Your task to perform on an android device: turn on improve location accuracy Image 0: 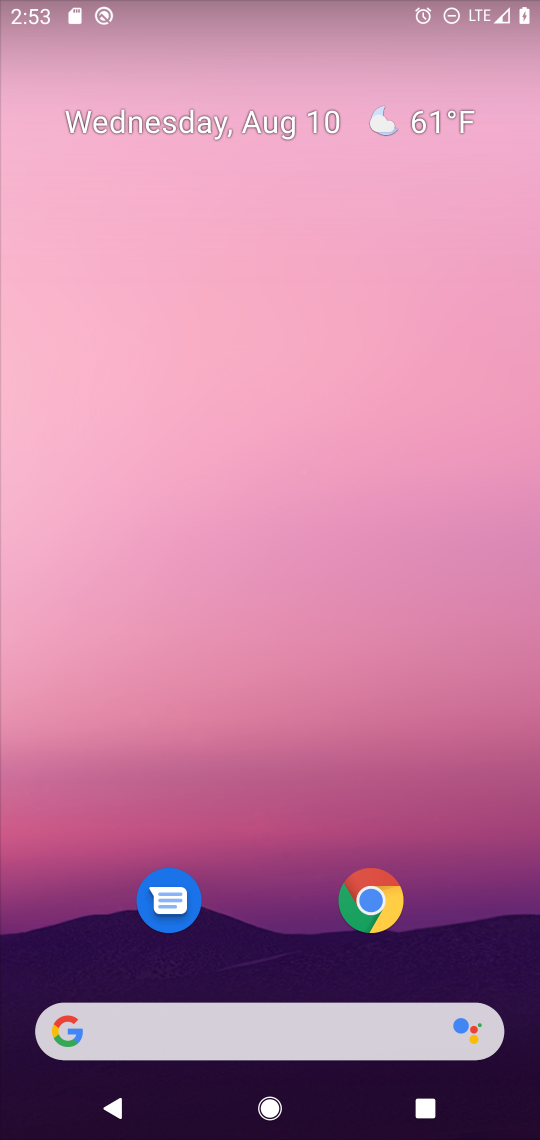
Step 0: drag from (279, 887) to (332, 3)
Your task to perform on an android device: turn on improve location accuracy Image 1: 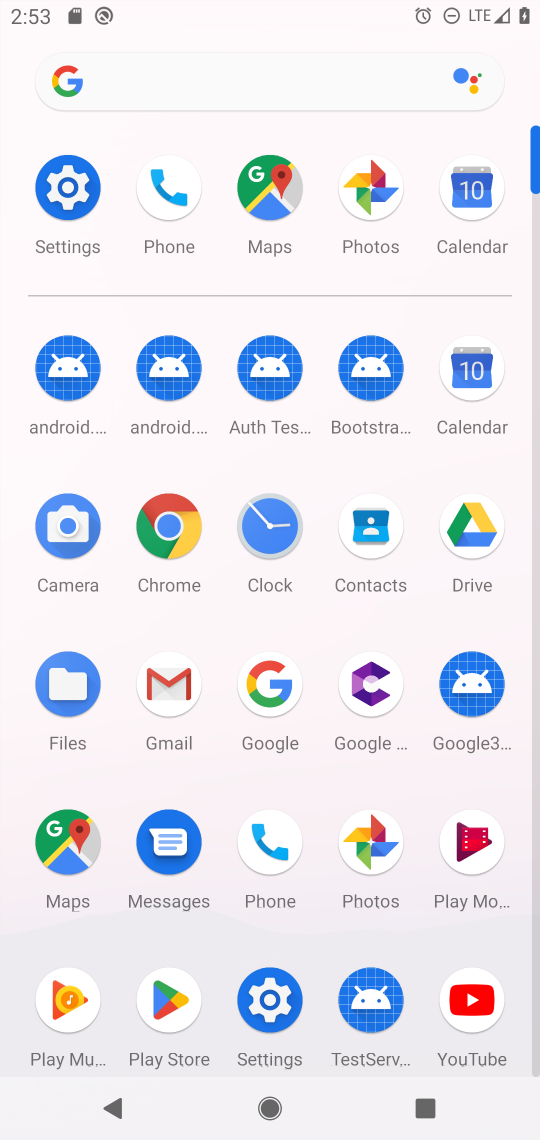
Step 1: click (68, 181)
Your task to perform on an android device: turn on improve location accuracy Image 2: 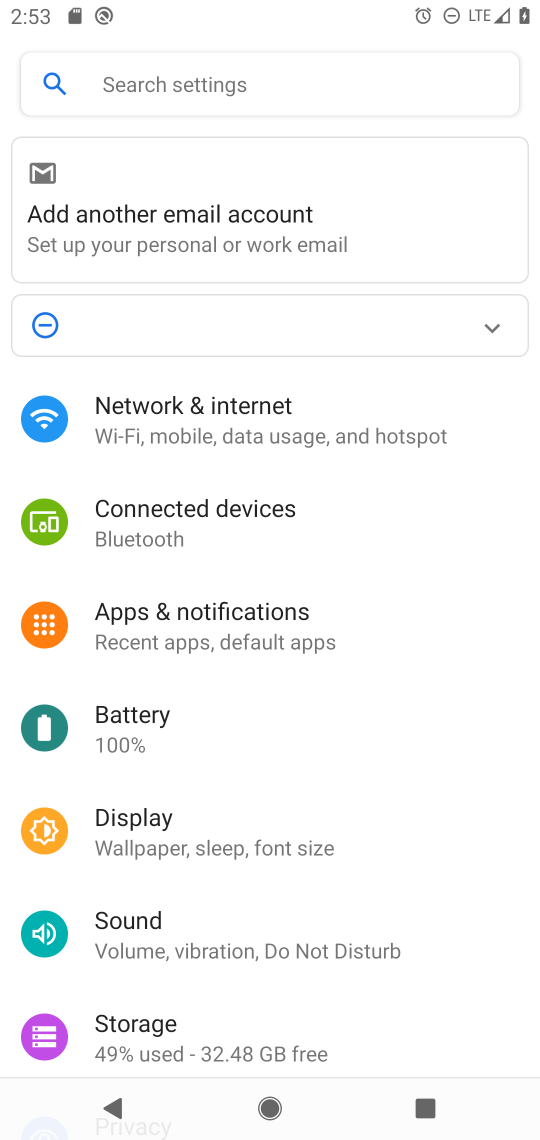
Step 2: drag from (289, 806) to (319, 2)
Your task to perform on an android device: turn on improve location accuracy Image 3: 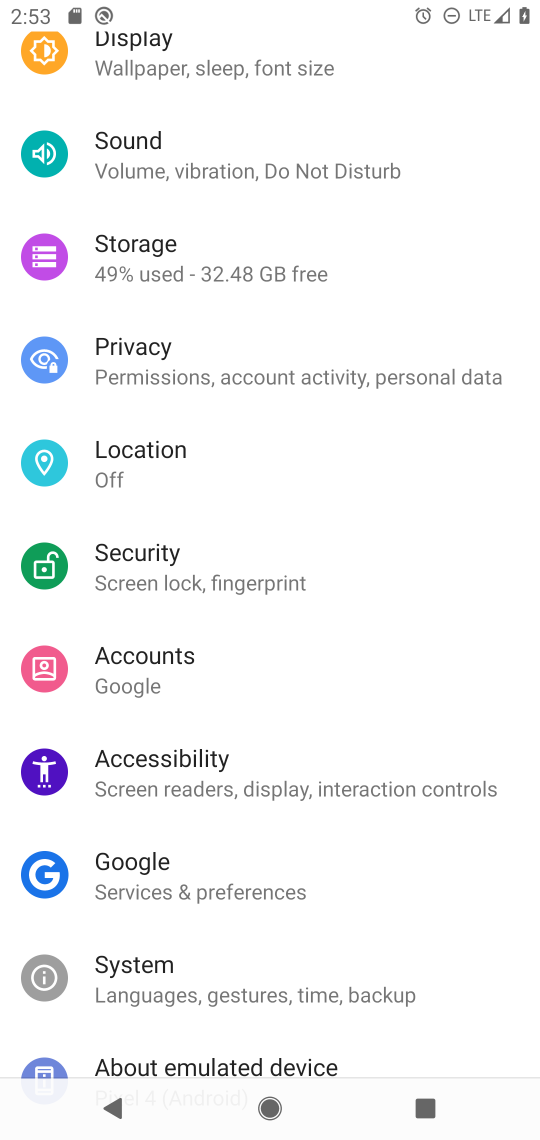
Step 3: click (289, 466)
Your task to perform on an android device: turn on improve location accuracy Image 4: 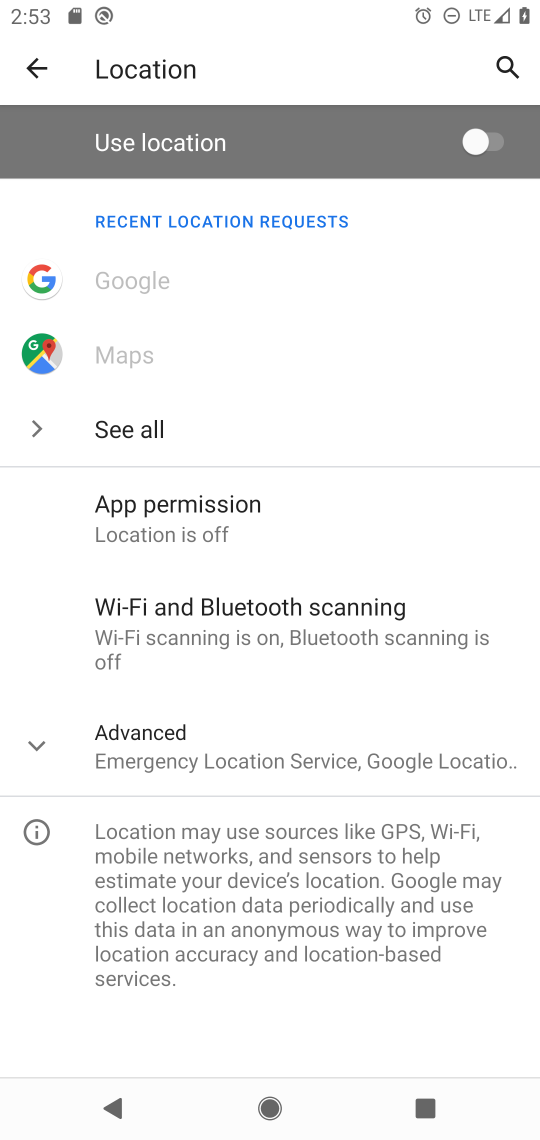
Step 4: click (42, 743)
Your task to perform on an android device: turn on improve location accuracy Image 5: 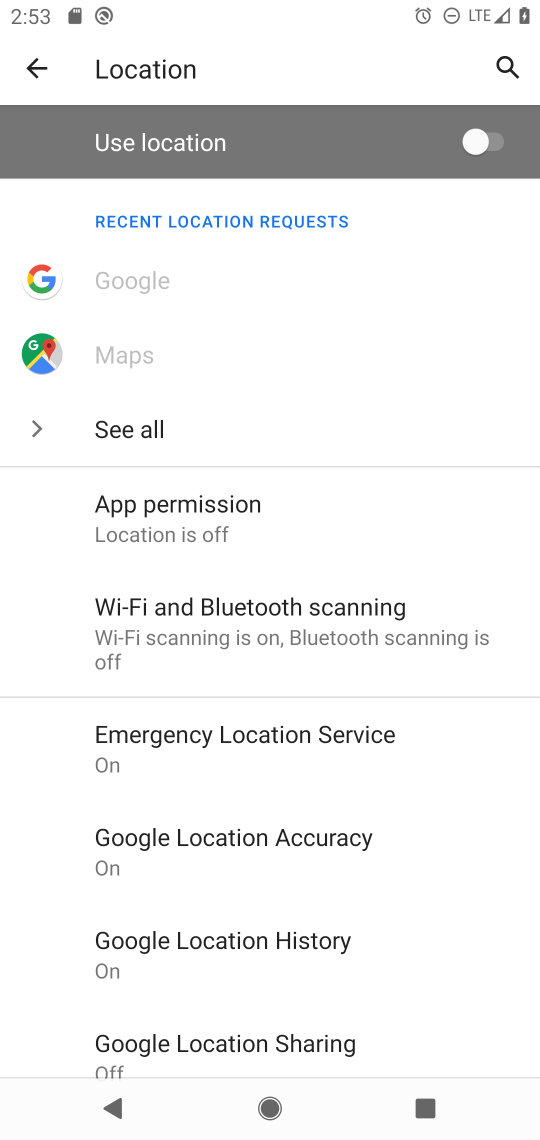
Step 5: click (320, 837)
Your task to perform on an android device: turn on improve location accuracy Image 6: 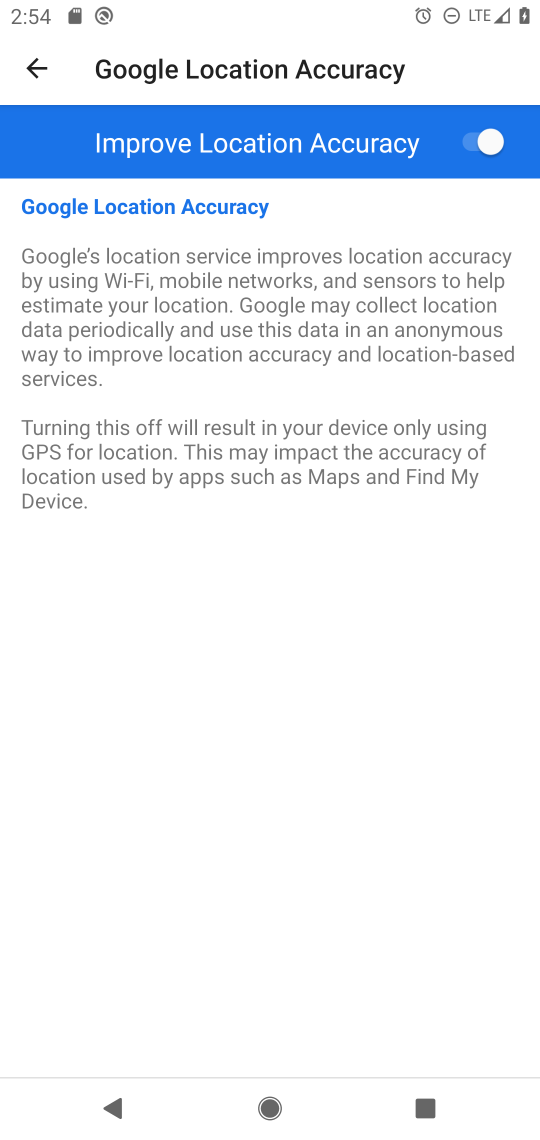
Step 6: task complete